Your task to perform on an android device: Do I have any events today? Image 0: 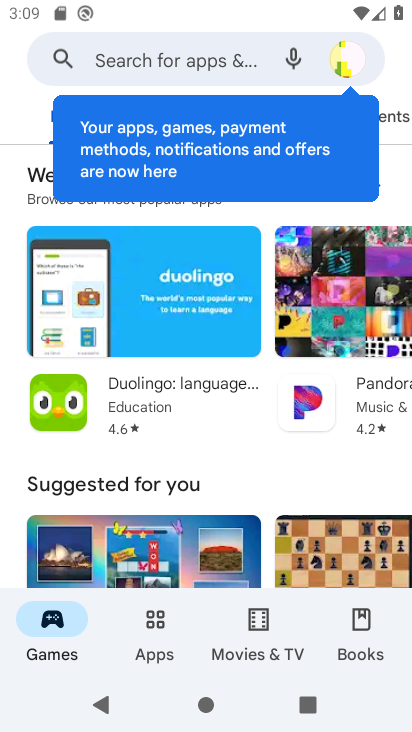
Step 0: press home button
Your task to perform on an android device: Do I have any events today? Image 1: 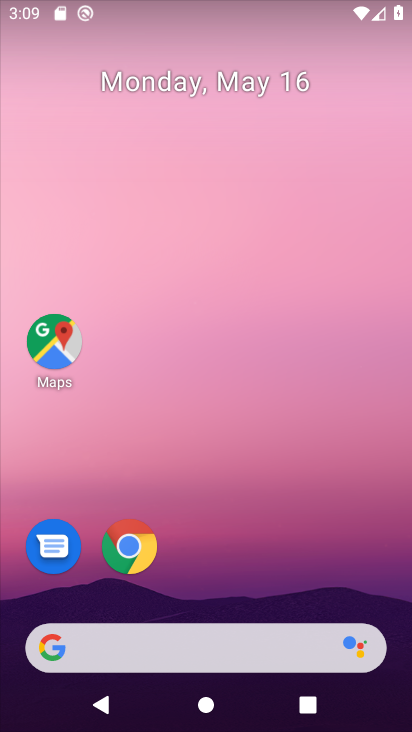
Step 1: drag from (366, 510) to (380, 77)
Your task to perform on an android device: Do I have any events today? Image 2: 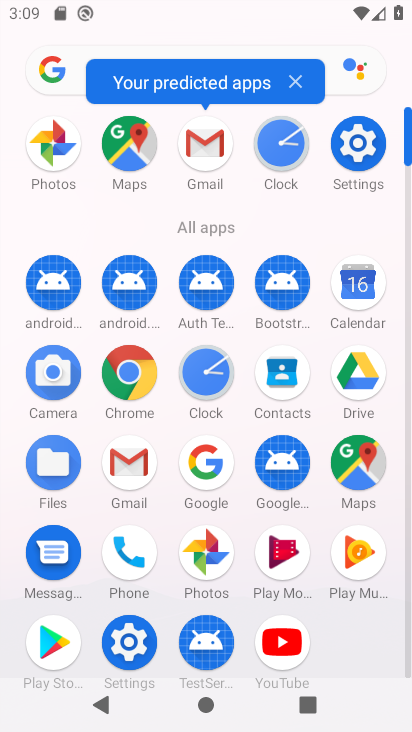
Step 2: click (359, 297)
Your task to perform on an android device: Do I have any events today? Image 3: 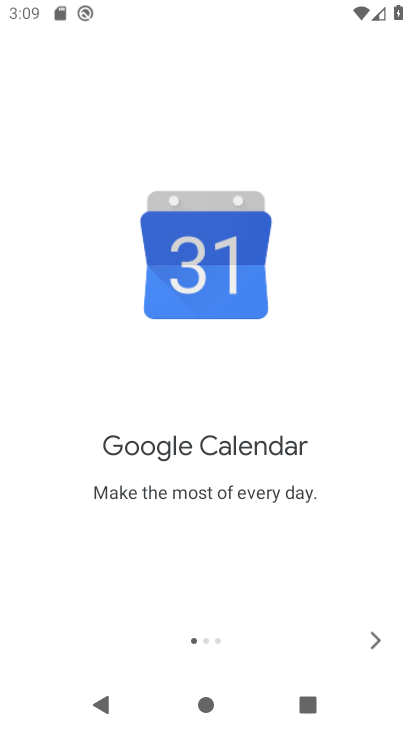
Step 3: click (372, 647)
Your task to perform on an android device: Do I have any events today? Image 4: 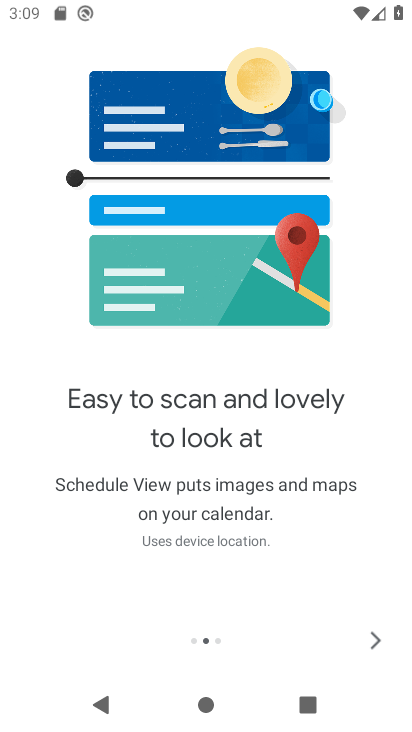
Step 4: click (384, 632)
Your task to perform on an android device: Do I have any events today? Image 5: 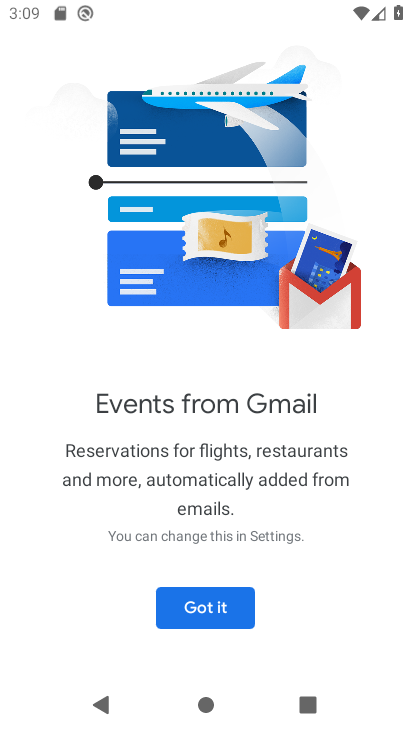
Step 5: click (222, 624)
Your task to perform on an android device: Do I have any events today? Image 6: 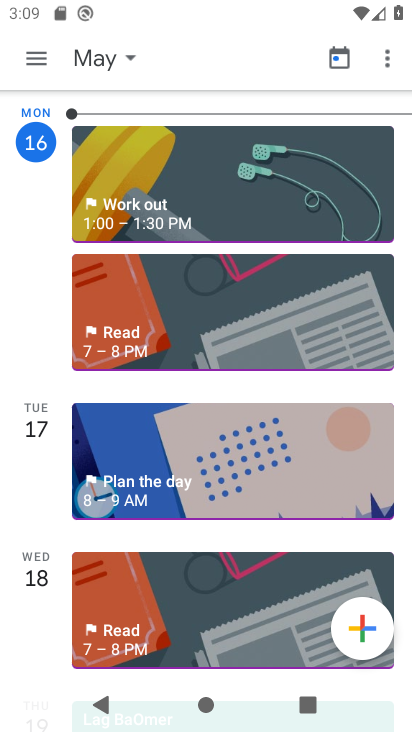
Step 6: click (140, 57)
Your task to perform on an android device: Do I have any events today? Image 7: 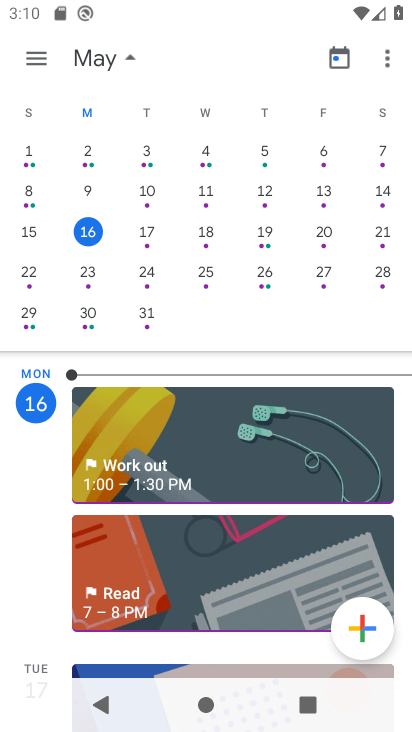
Step 7: click (189, 468)
Your task to perform on an android device: Do I have any events today? Image 8: 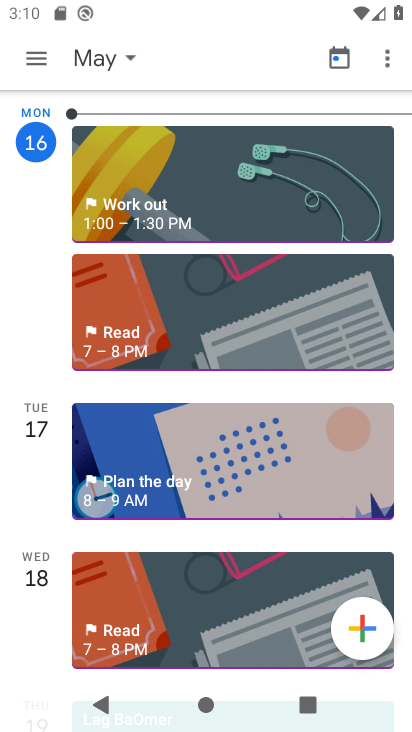
Step 8: click (178, 308)
Your task to perform on an android device: Do I have any events today? Image 9: 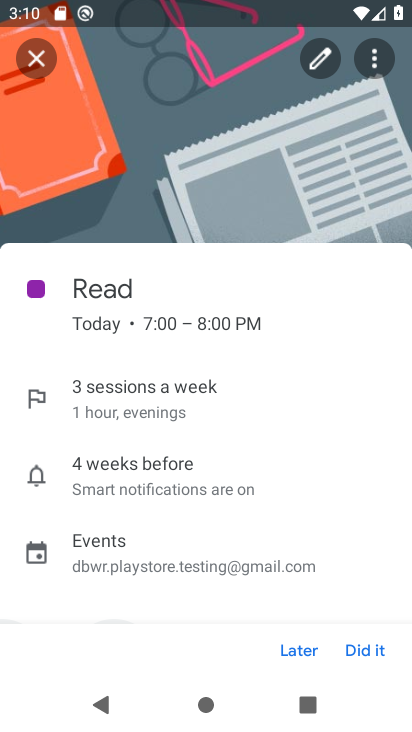
Step 9: task complete